Your task to perform on an android device: Do I have any events this weekend? Image 0: 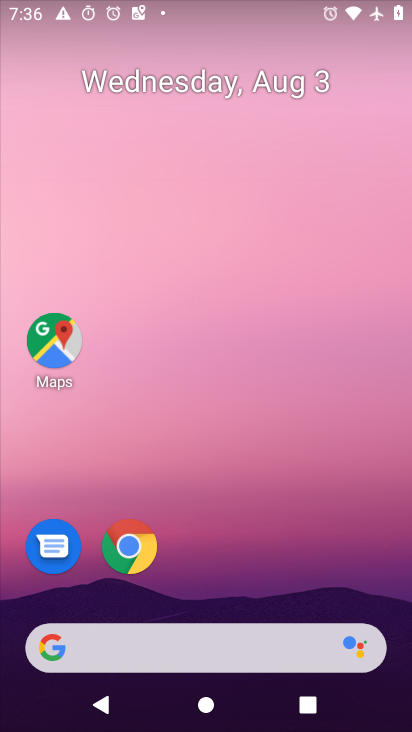
Step 0: press home button
Your task to perform on an android device: Do I have any events this weekend? Image 1: 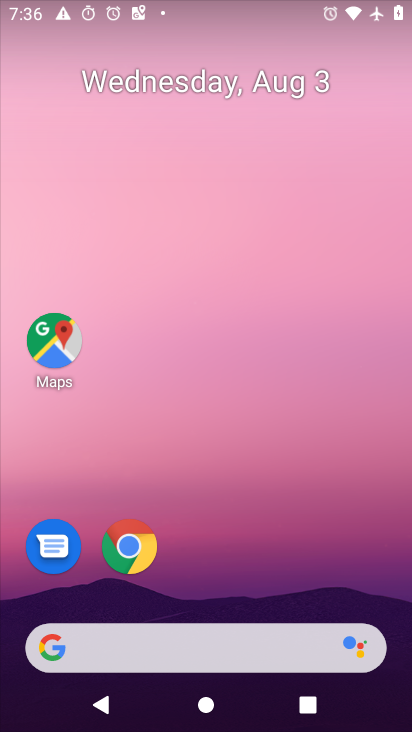
Step 1: drag from (204, 622) to (279, 0)
Your task to perform on an android device: Do I have any events this weekend? Image 2: 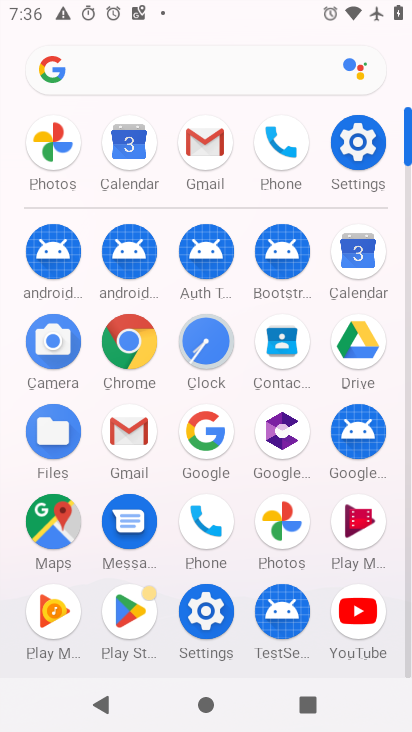
Step 2: click (367, 253)
Your task to perform on an android device: Do I have any events this weekend? Image 3: 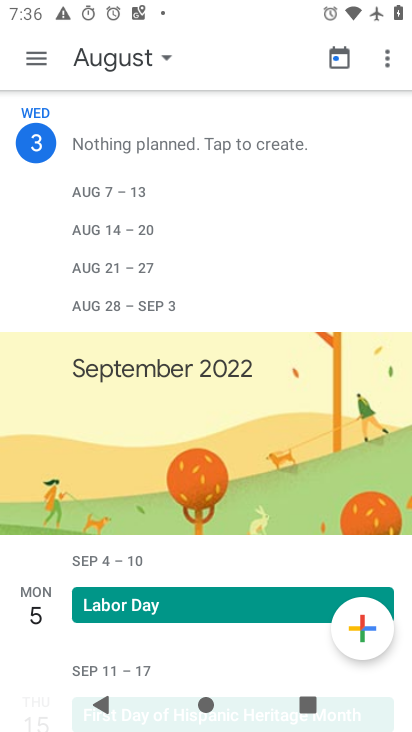
Step 3: click (34, 56)
Your task to perform on an android device: Do I have any events this weekend? Image 4: 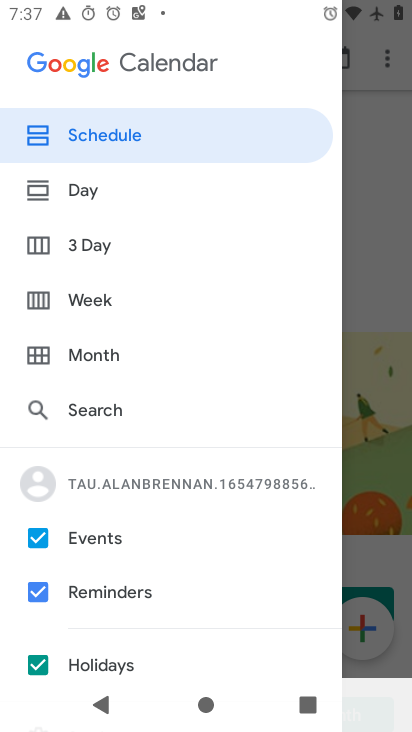
Step 4: click (80, 299)
Your task to perform on an android device: Do I have any events this weekend? Image 5: 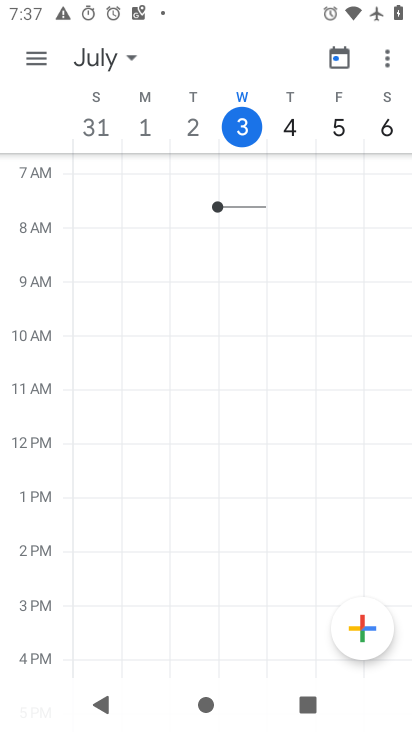
Step 5: task complete